Your task to perform on an android device: change keyboard looks Image 0: 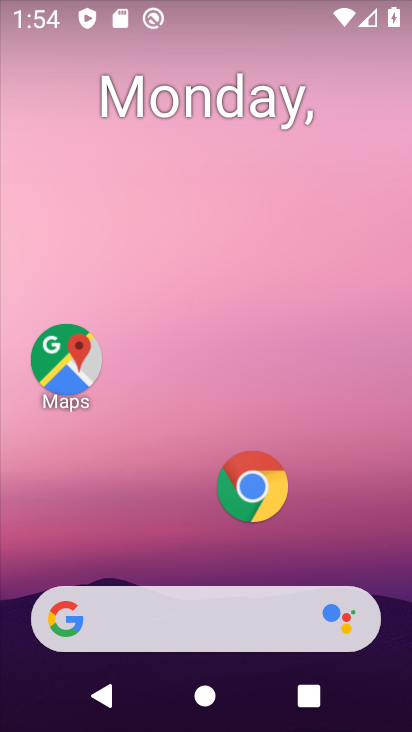
Step 0: drag from (321, 556) to (347, 147)
Your task to perform on an android device: change keyboard looks Image 1: 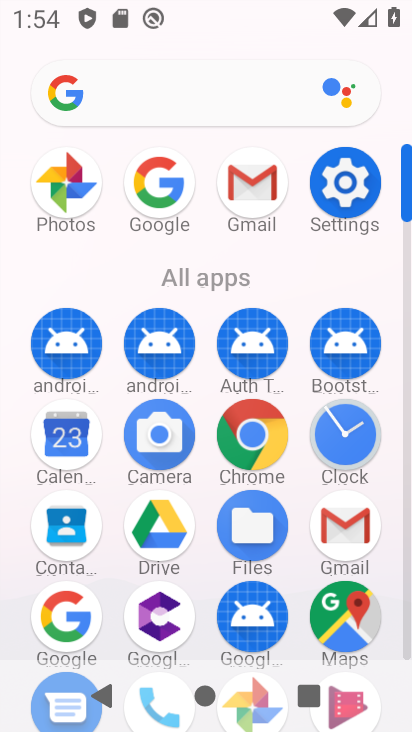
Step 1: click (342, 195)
Your task to perform on an android device: change keyboard looks Image 2: 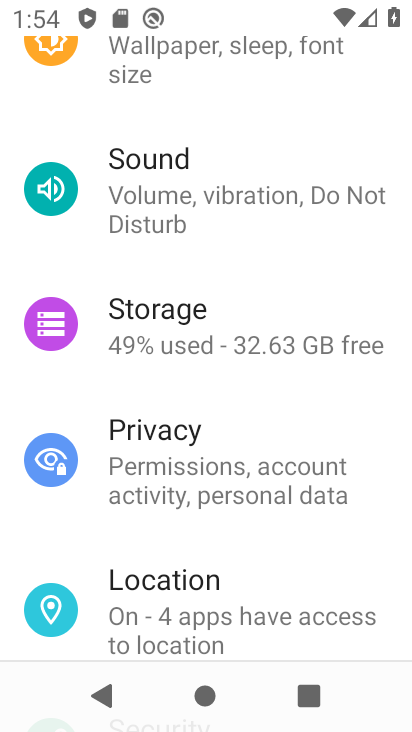
Step 2: drag from (226, 616) to (286, 330)
Your task to perform on an android device: change keyboard looks Image 3: 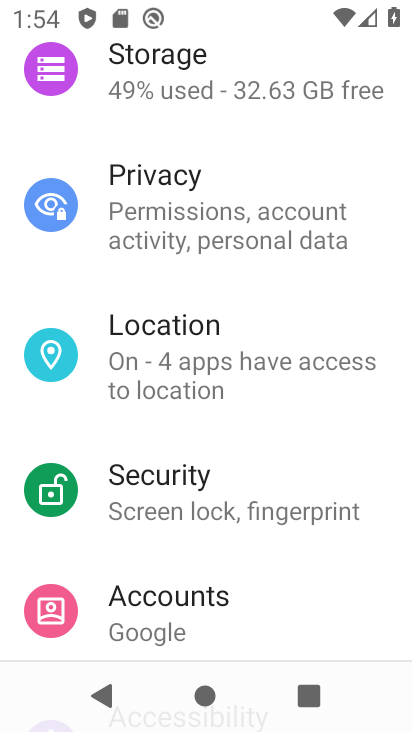
Step 3: drag from (253, 597) to (315, 264)
Your task to perform on an android device: change keyboard looks Image 4: 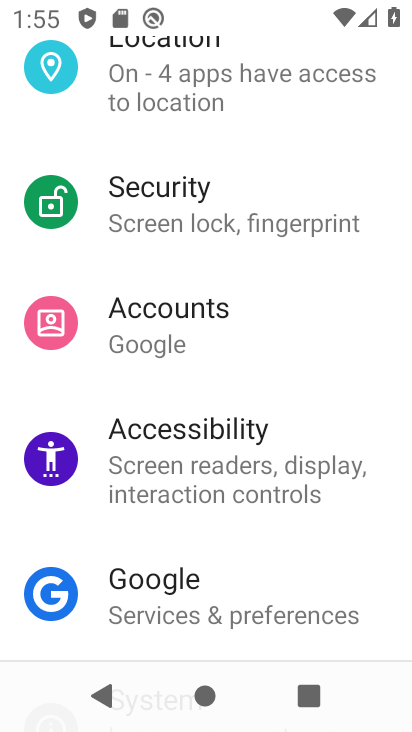
Step 4: drag from (218, 563) to (266, 309)
Your task to perform on an android device: change keyboard looks Image 5: 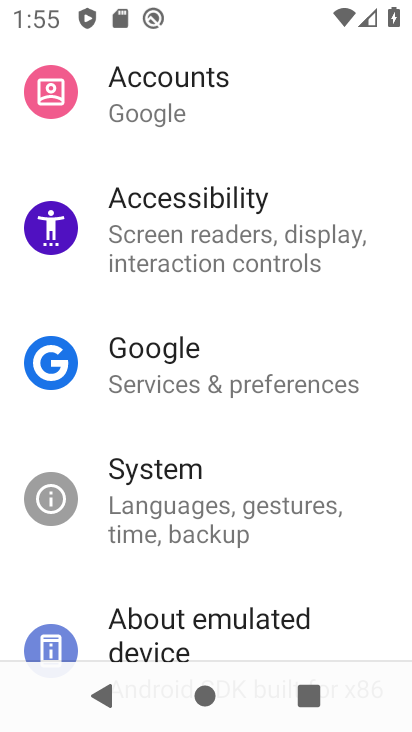
Step 5: click (258, 522)
Your task to perform on an android device: change keyboard looks Image 6: 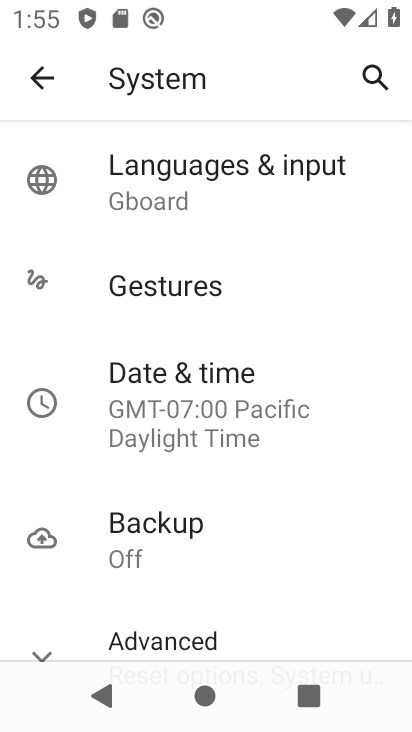
Step 6: click (226, 191)
Your task to perform on an android device: change keyboard looks Image 7: 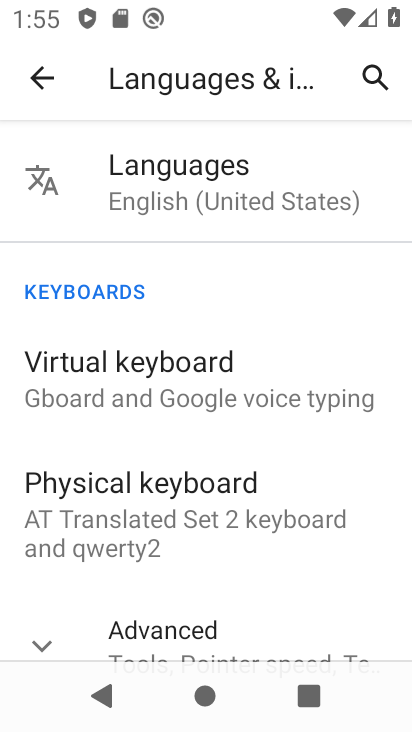
Step 7: click (100, 396)
Your task to perform on an android device: change keyboard looks Image 8: 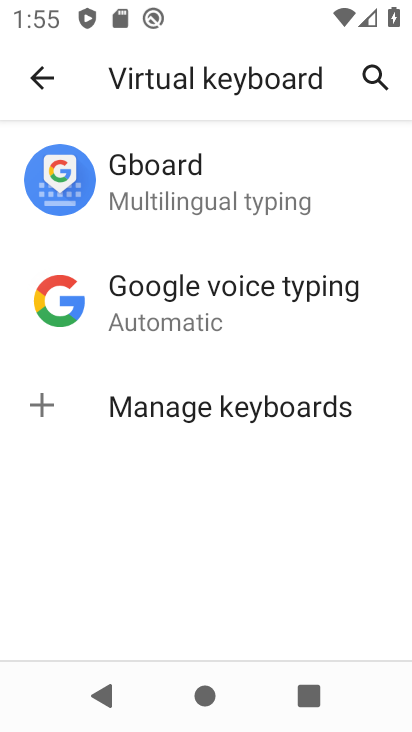
Step 8: click (155, 177)
Your task to perform on an android device: change keyboard looks Image 9: 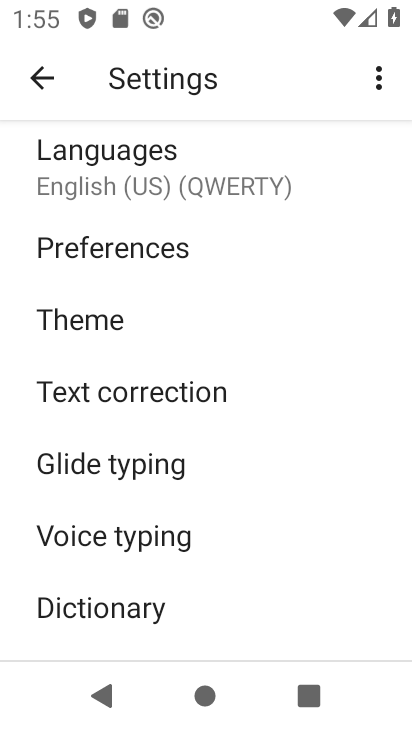
Step 9: click (121, 312)
Your task to perform on an android device: change keyboard looks Image 10: 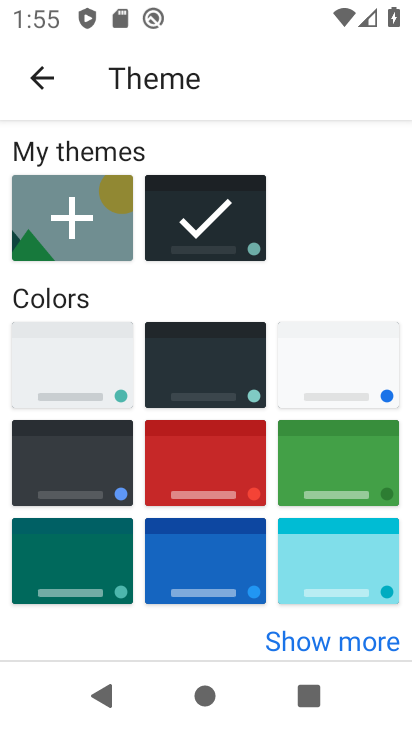
Step 10: click (322, 574)
Your task to perform on an android device: change keyboard looks Image 11: 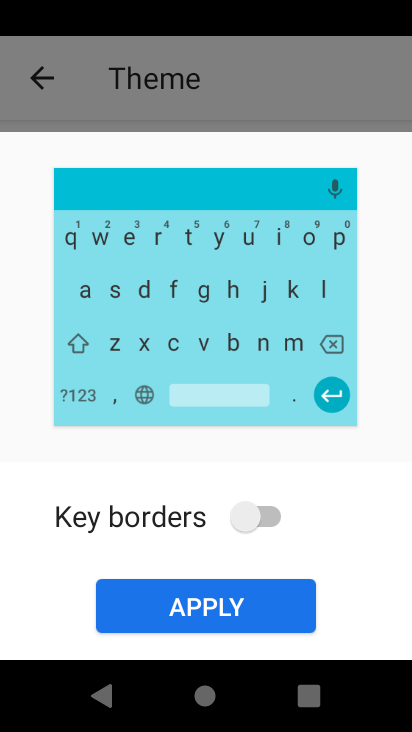
Step 11: click (224, 615)
Your task to perform on an android device: change keyboard looks Image 12: 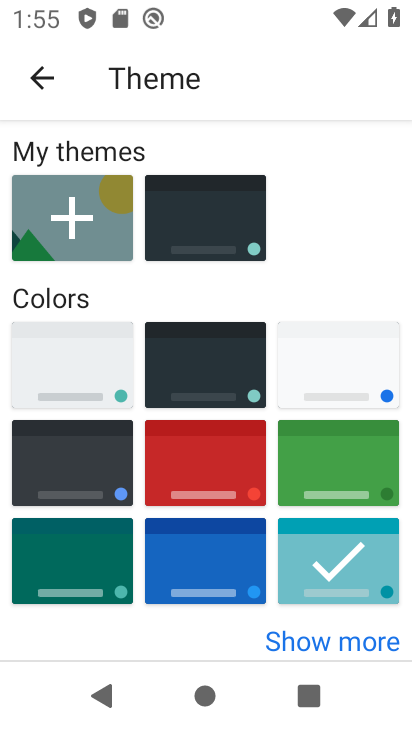
Step 12: task complete